Your task to perform on an android device: What's on my calendar tomorrow? Image 0: 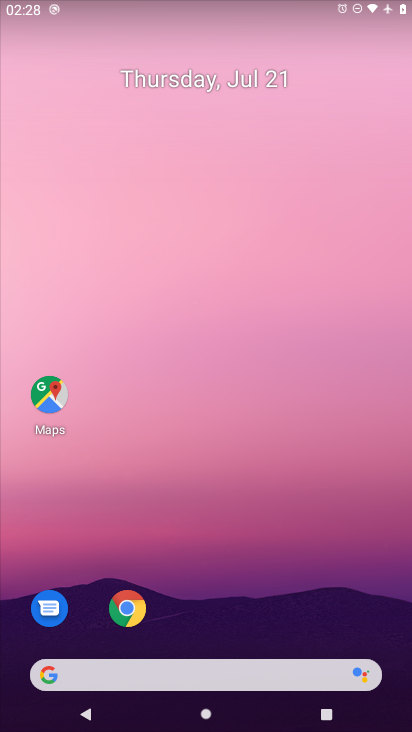
Step 0: press home button
Your task to perform on an android device: What's on my calendar tomorrow? Image 1: 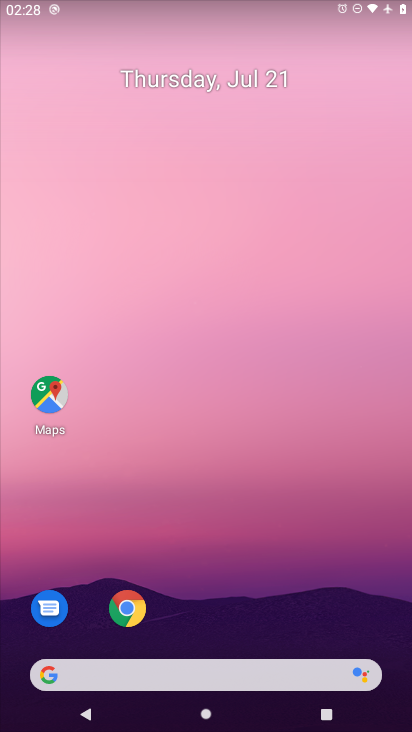
Step 1: drag from (221, 604) to (244, 12)
Your task to perform on an android device: What's on my calendar tomorrow? Image 2: 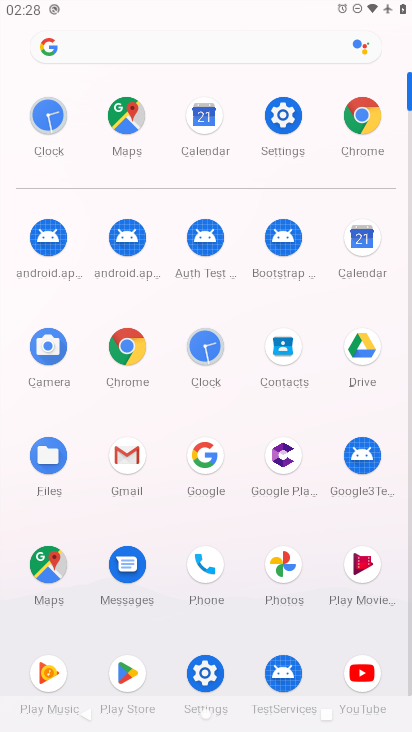
Step 2: click (356, 236)
Your task to perform on an android device: What's on my calendar tomorrow? Image 3: 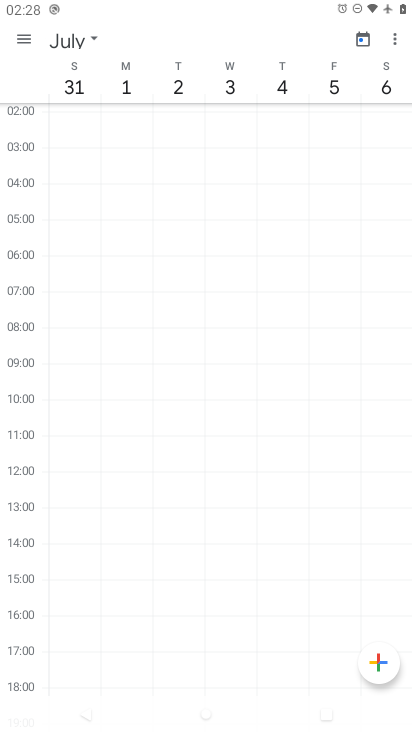
Step 3: click (78, 46)
Your task to perform on an android device: What's on my calendar tomorrow? Image 4: 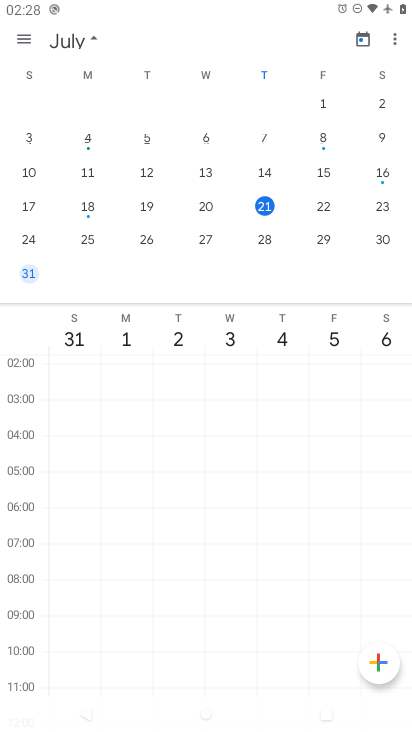
Step 4: click (323, 204)
Your task to perform on an android device: What's on my calendar tomorrow? Image 5: 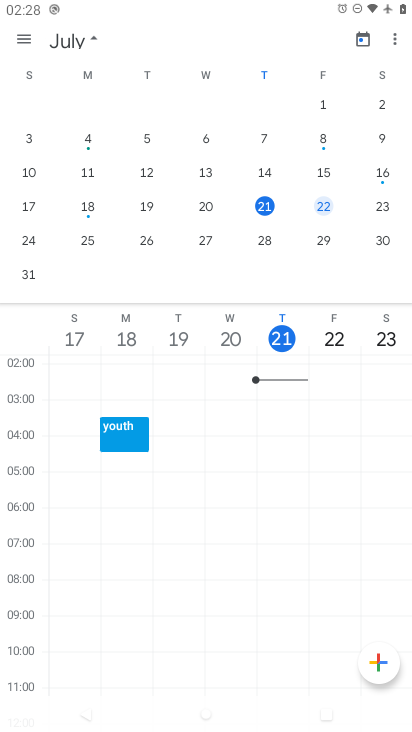
Step 5: task complete